Your task to perform on an android device: Add asus zenbook to the cart on amazon.com Image 0: 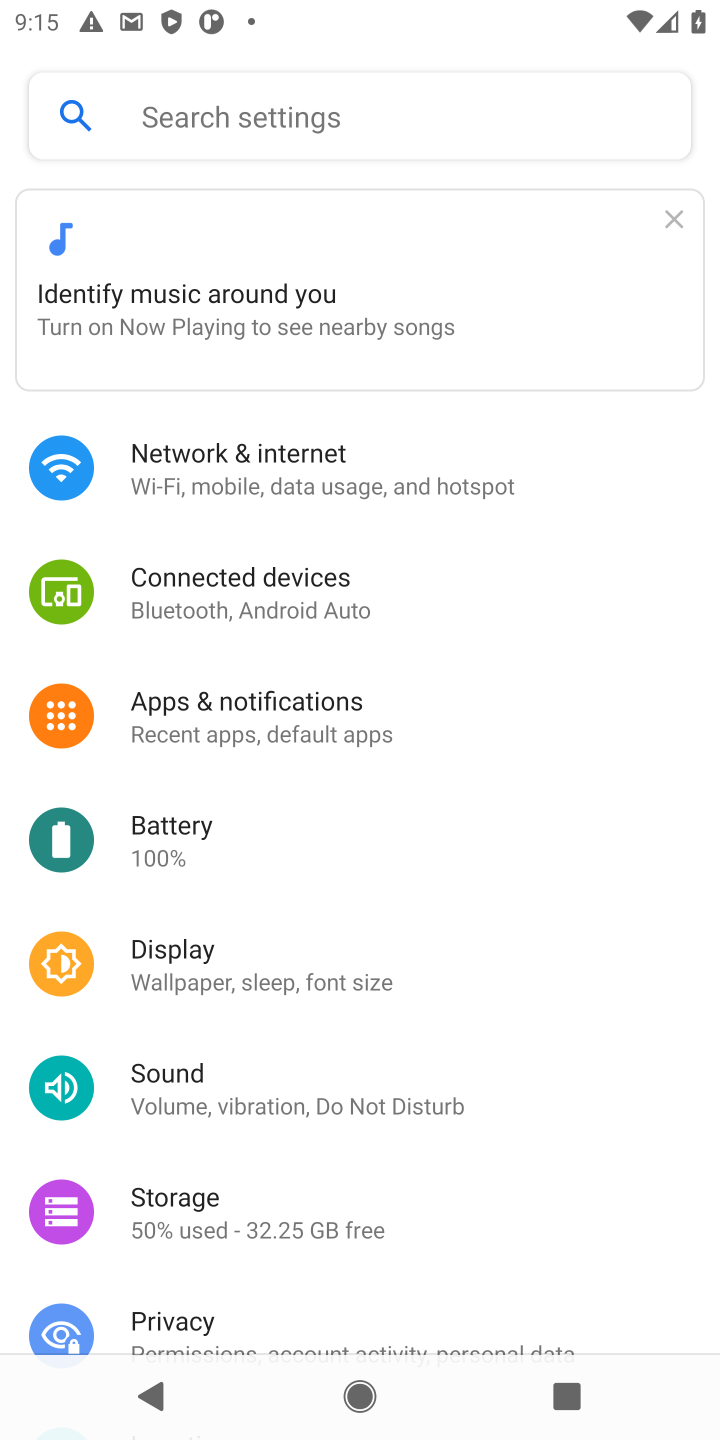
Step 0: press home button
Your task to perform on an android device: Add asus zenbook to the cart on amazon.com Image 1: 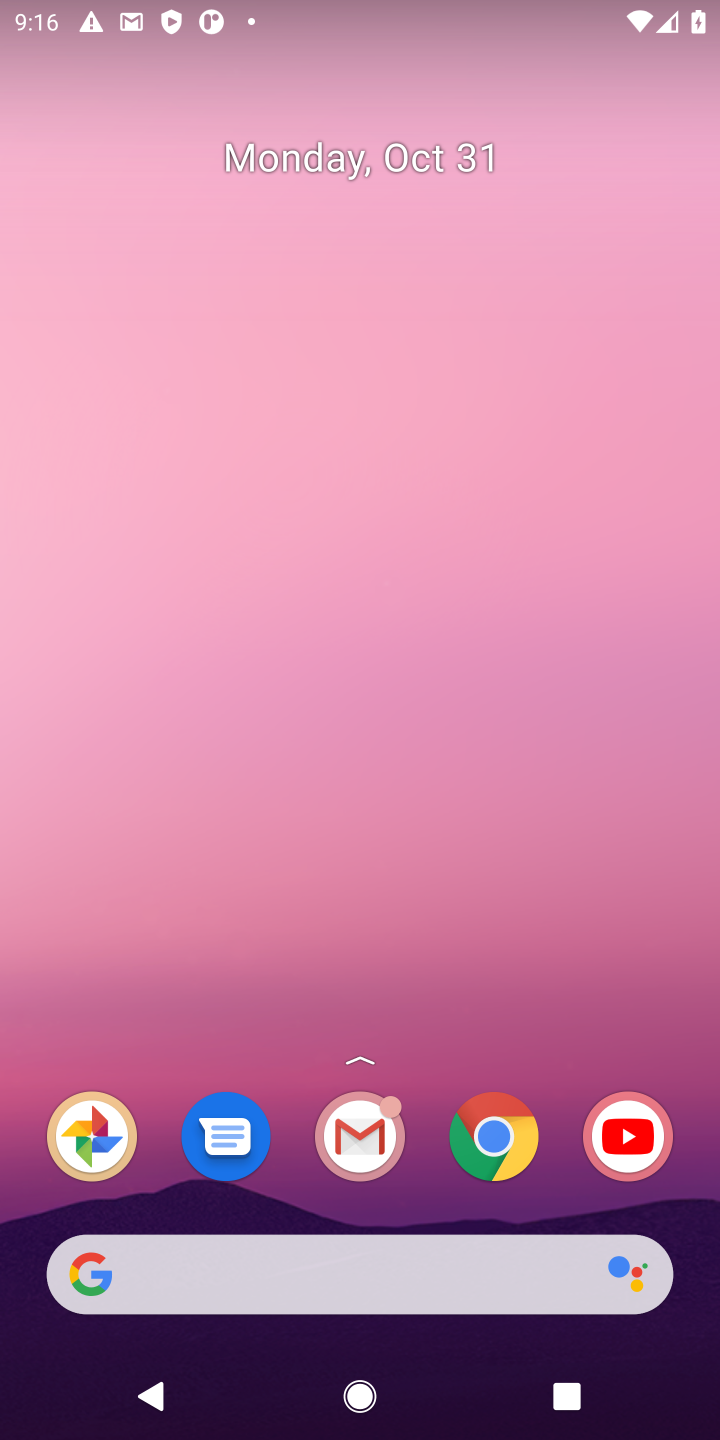
Step 1: click (89, 1266)
Your task to perform on an android device: Add asus zenbook to the cart on amazon.com Image 2: 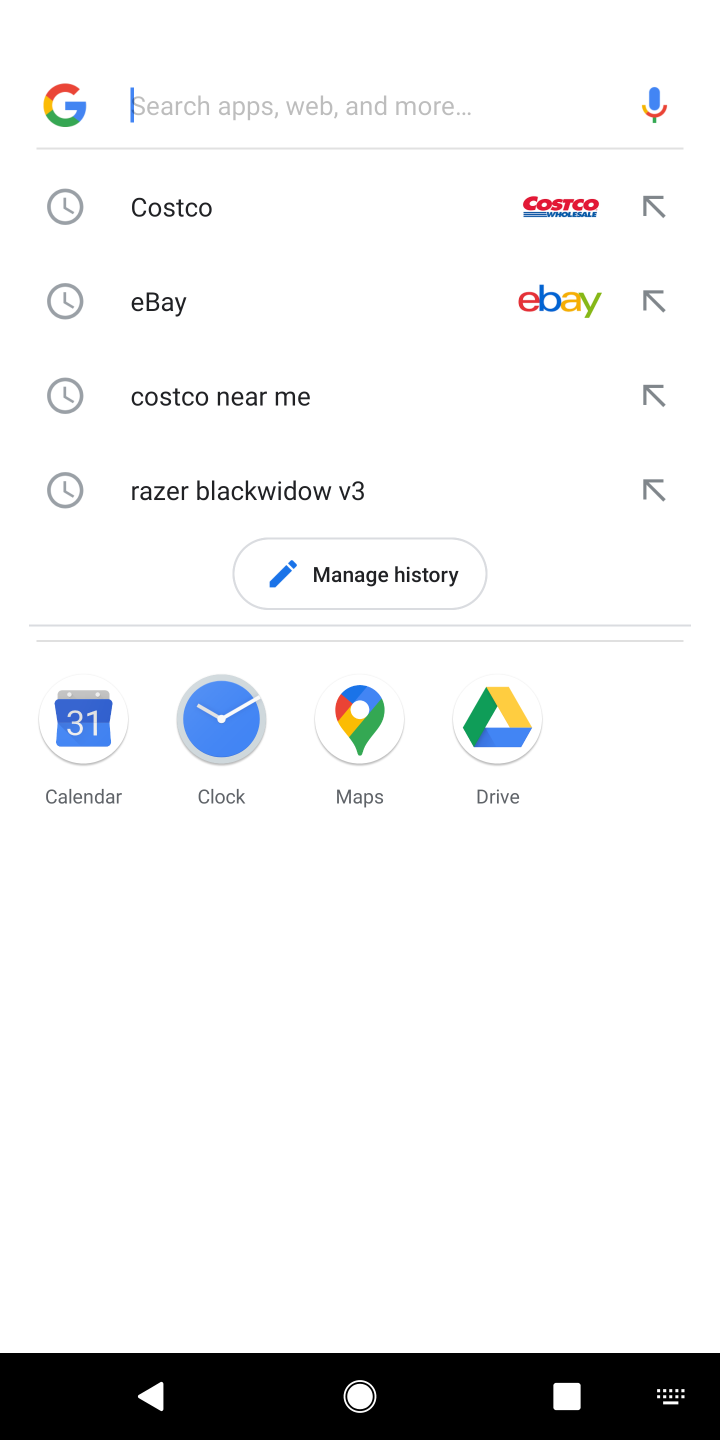
Step 2: type "amazon.com"
Your task to perform on an android device: Add asus zenbook to the cart on amazon.com Image 3: 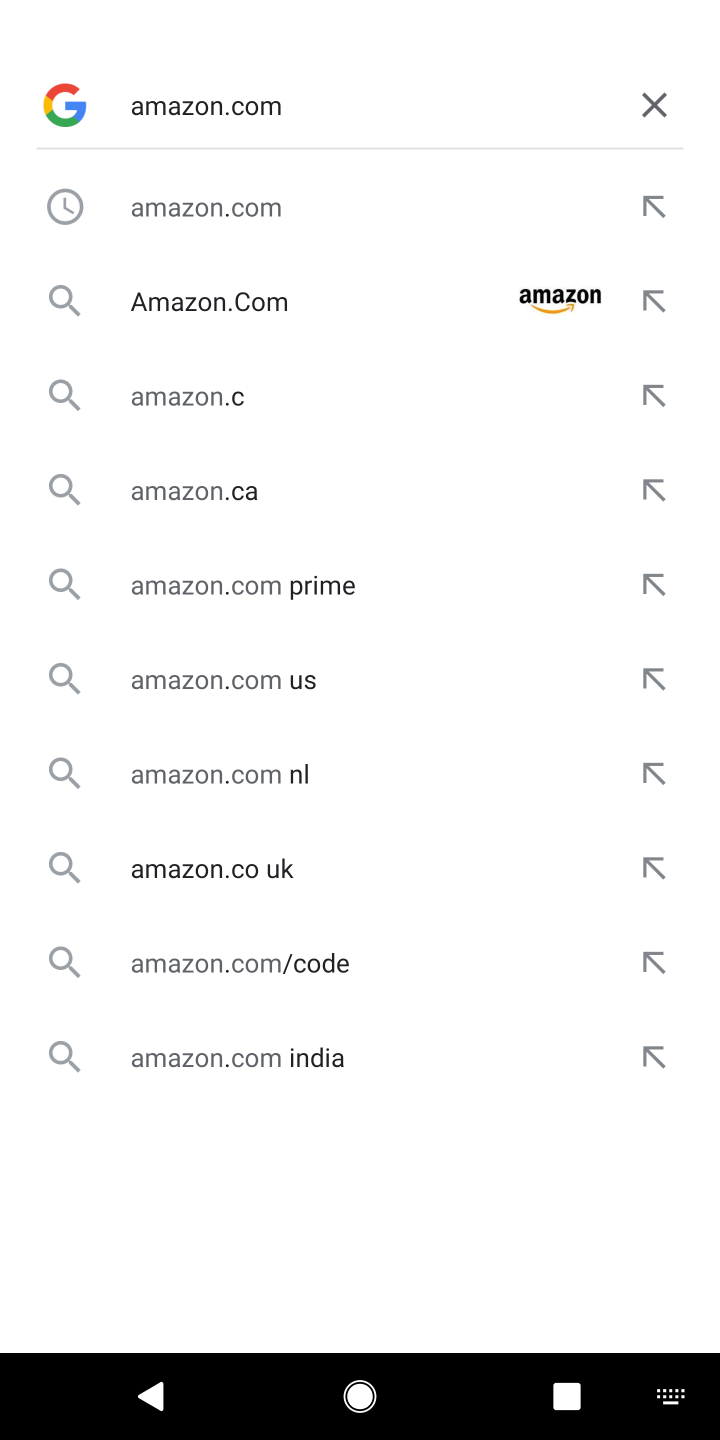
Step 3: click (176, 210)
Your task to perform on an android device: Add asus zenbook to the cart on amazon.com Image 4: 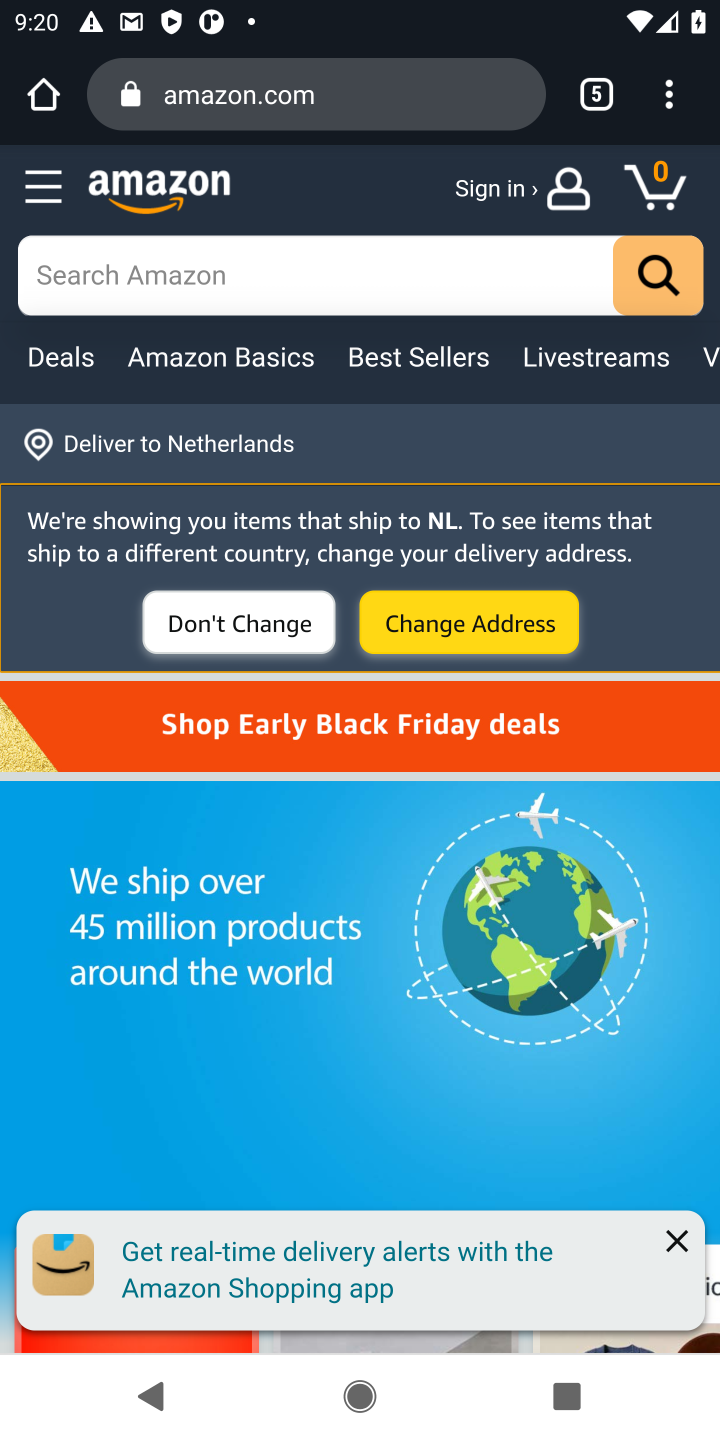
Step 4: click (240, 267)
Your task to perform on an android device: Add asus zenbook to the cart on amazon.com Image 5: 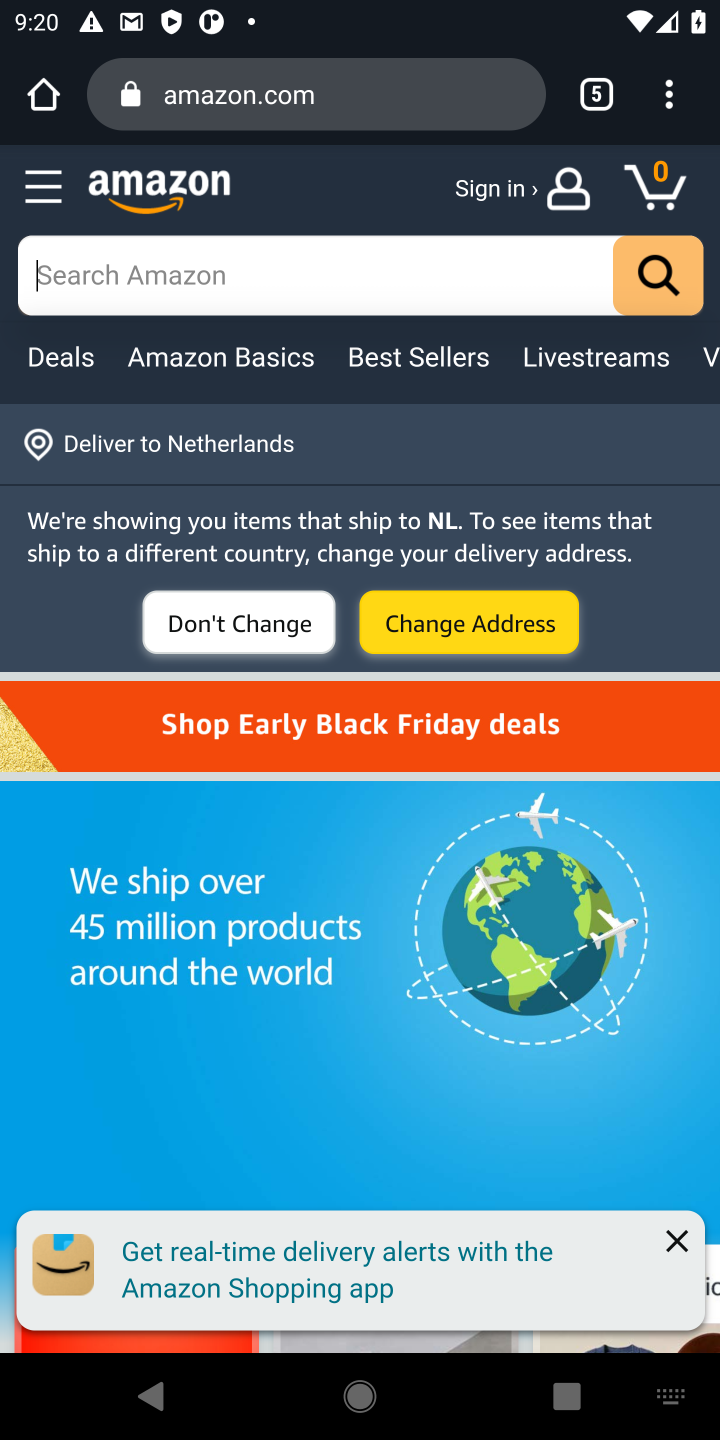
Step 5: task complete